Your task to perform on an android device: Open Yahoo.com Image 0: 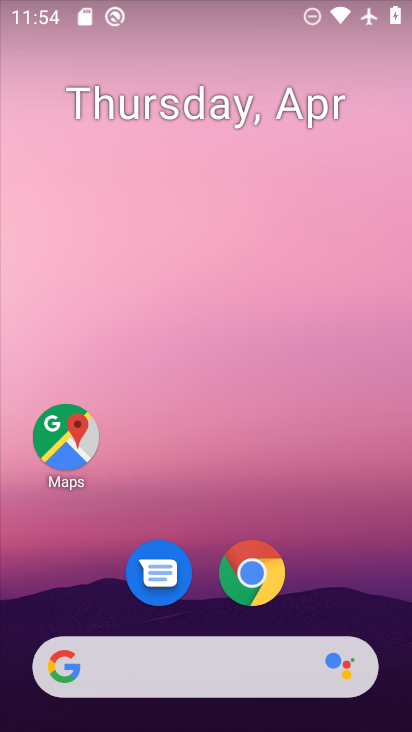
Step 0: click (258, 6)
Your task to perform on an android device: Open Yahoo.com Image 1: 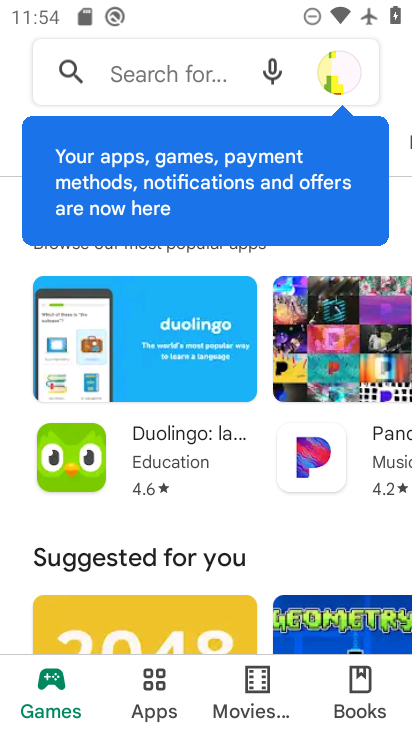
Step 1: press home button
Your task to perform on an android device: Open Yahoo.com Image 2: 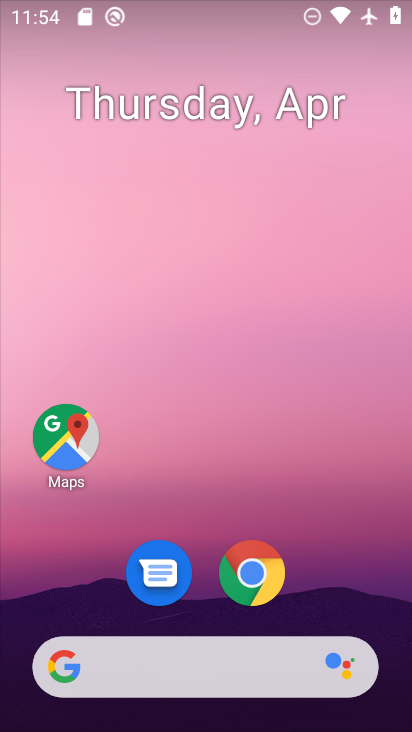
Step 2: click (228, 576)
Your task to perform on an android device: Open Yahoo.com Image 3: 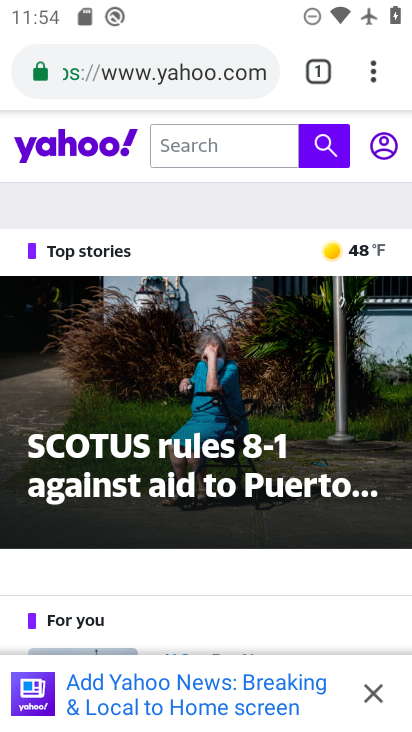
Step 3: task complete